Your task to perform on an android device: Open Amazon Image 0: 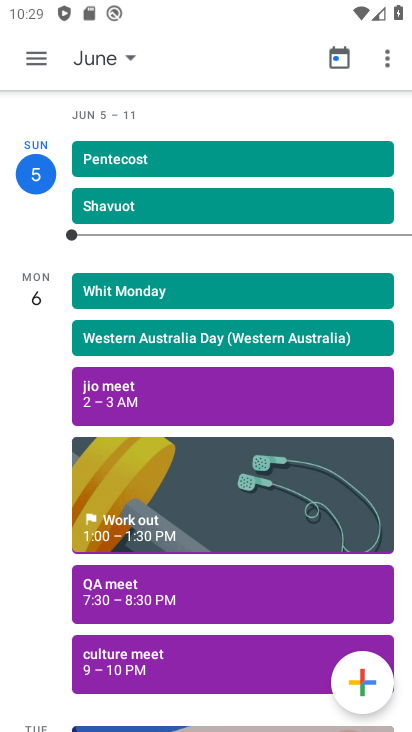
Step 0: press home button
Your task to perform on an android device: Open Amazon Image 1: 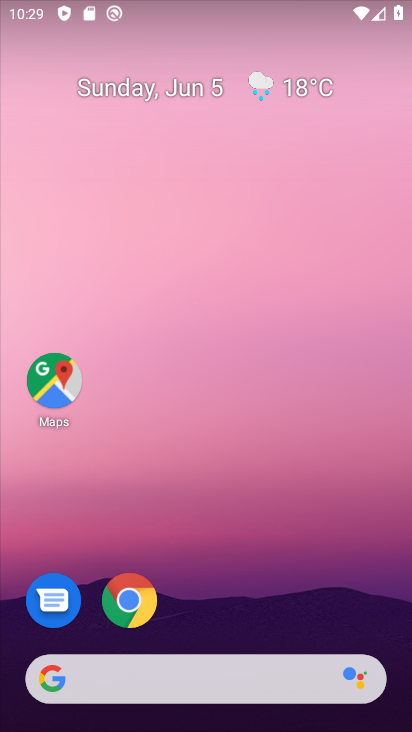
Step 1: click (137, 606)
Your task to perform on an android device: Open Amazon Image 2: 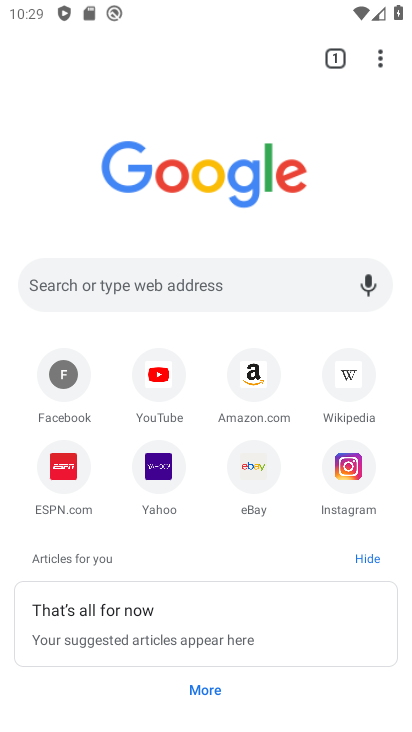
Step 2: click (255, 388)
Your task to perform on an android device: Open Amazon Image 3: 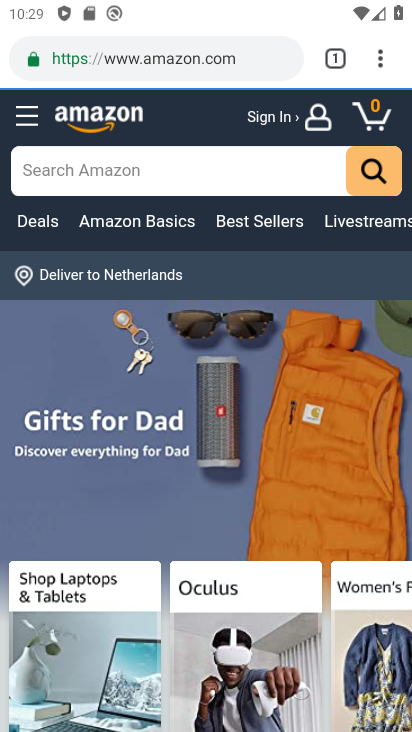
Step 3: task complete